Your task to perform on an android device: toggle improve location accuracy Image 0: 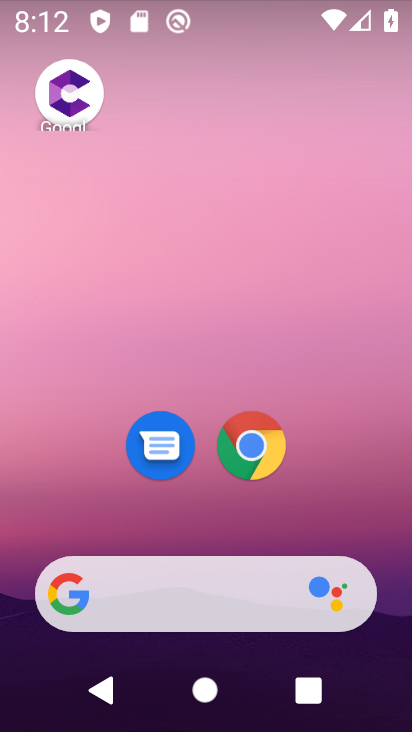
Step 0: drag from (200, 529) to (84, 16)
Your task to perform on an android device: toggle improve location accuracy Image 1: 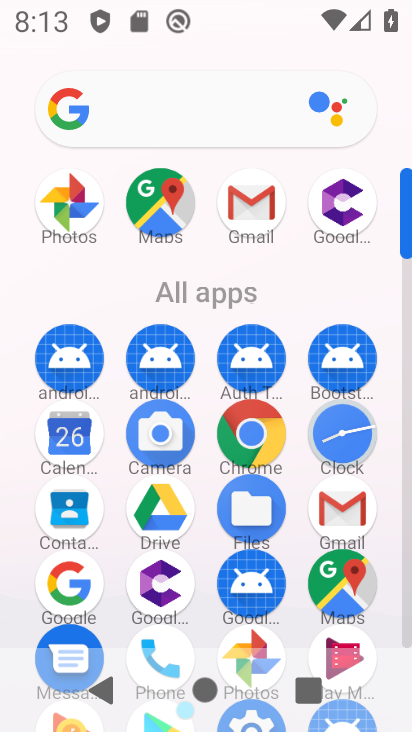
Step 1: drag from (269, 536) to (288, 36)
Your task to perform on an android device: toggle improve location accuracy Image 2: 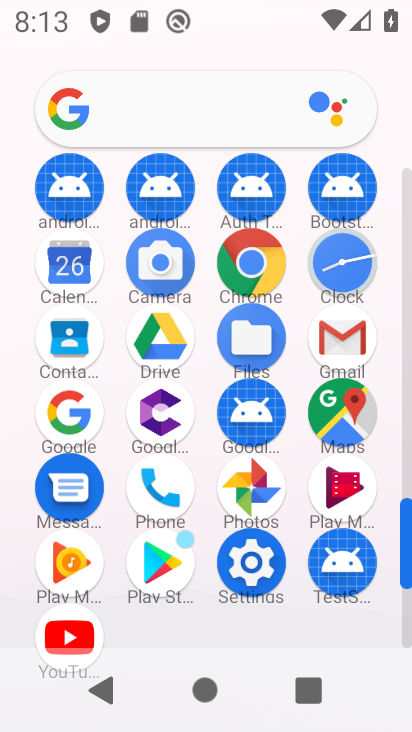
Step 2: click (243, 562)
Your task to perform on an android device: toggle improve location accuracy Image 3: 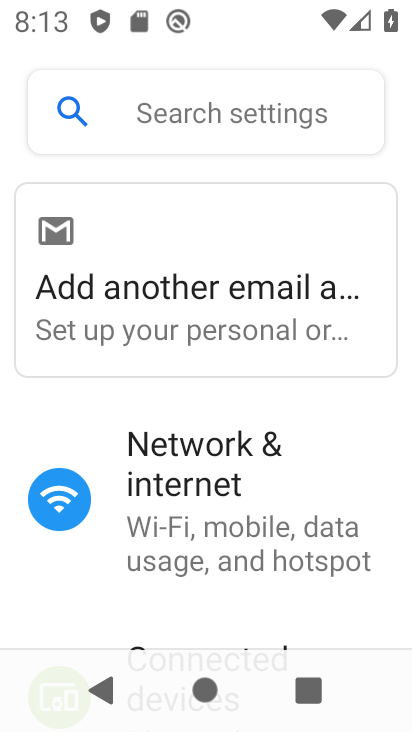
Step 3: drag from (259, 519) to (199, 44)
Your task to perform on an android device: toggle improve location accuracy Image 4: 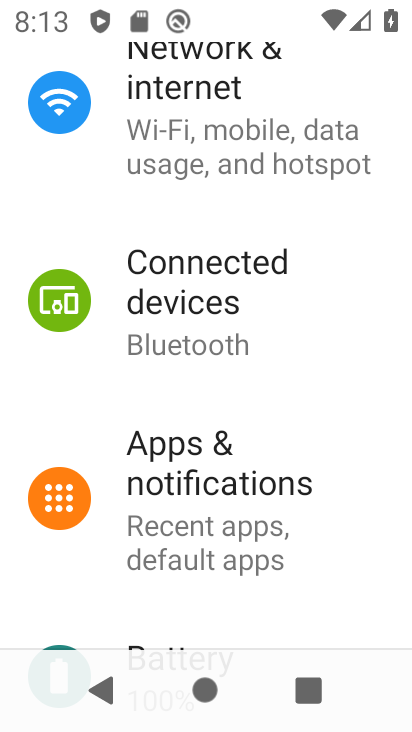
Step 4: drag from (276, 522) to (276, 6)
Your task to perform on an android device: toggle improve location accuracy Image 5: 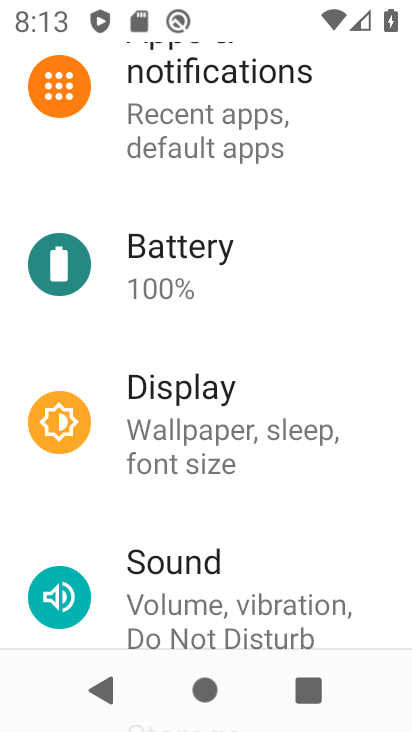
Step 5: drag from (320, 517) to (265, 61)
Your task to perform on an android device: toggle improve location accuracy Image 6: 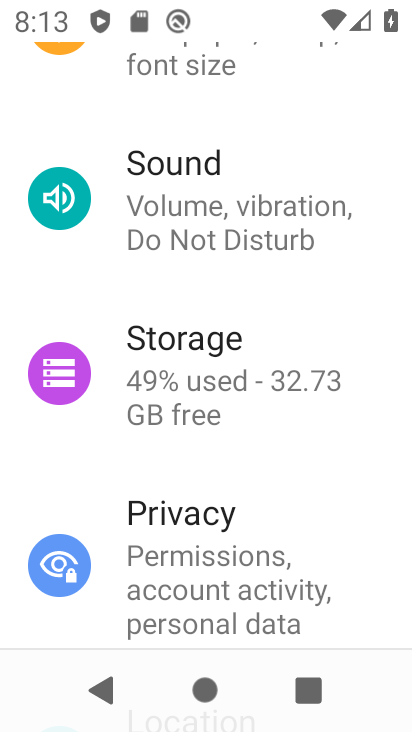
Step 6: drag from (303, 568) to (237, 157)
Your task to perform on an android device: toggle improve location accuracy Image 7: 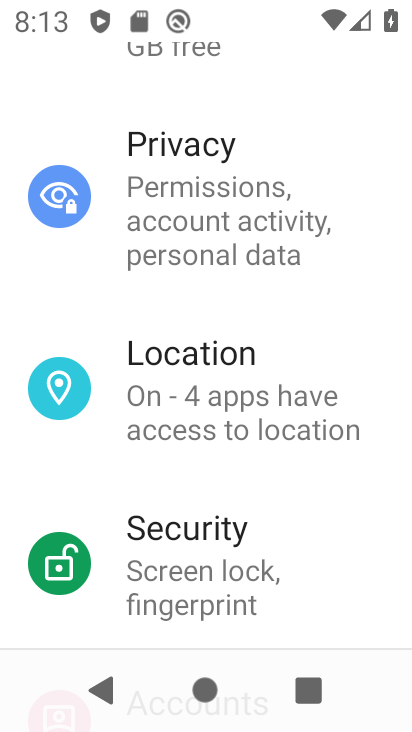
Step 7: click (245, 428)
Your task to perform on an android device: toggle improve location accuracy Image 8: 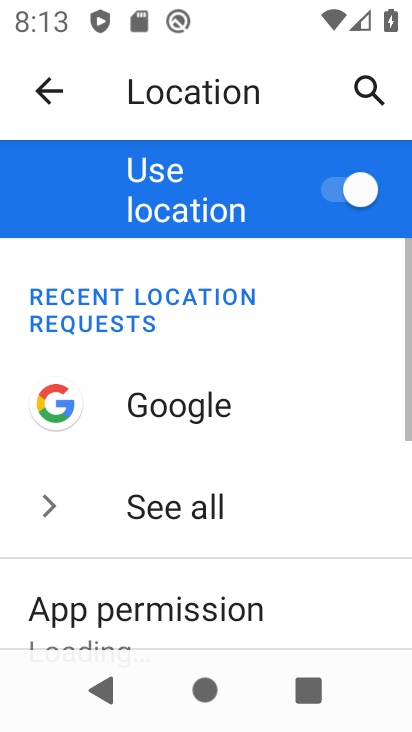
Step 8: drag from (238, 560) to (175, 63)
Your task to perform on an android device: toggle improve location accuracy Image 9: 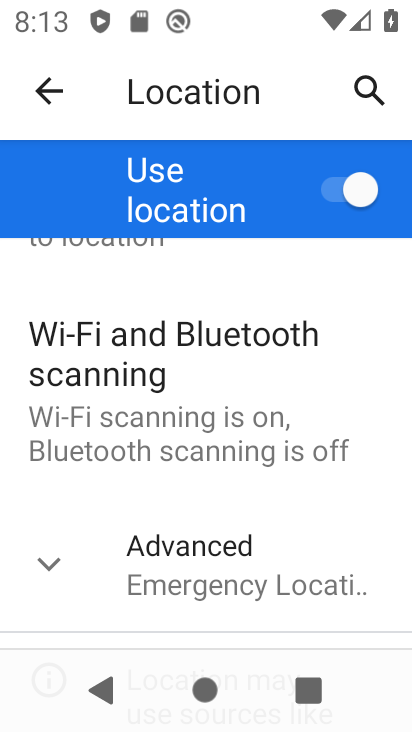
Step 9: click (281, 579)
Your task to perform on an android device: toggle improve location accuracy Image 10: 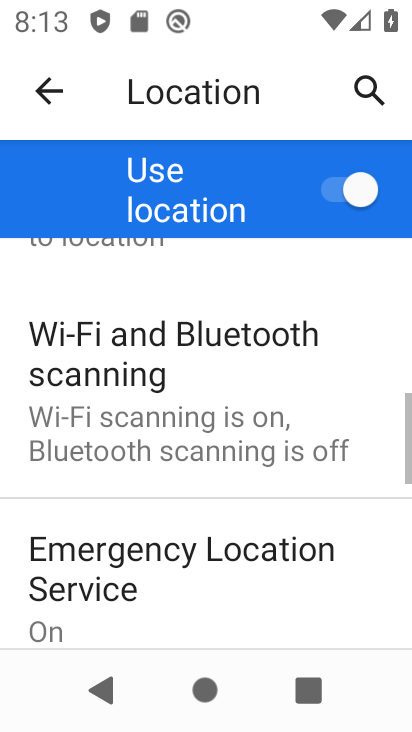
Step 10: drag from (282, 567) to (204, 127)
Your task to perform on an android device: toggle improve location accuracy Image 11: 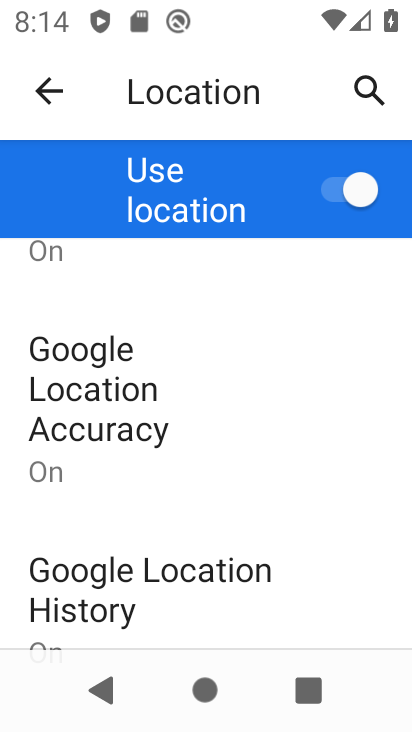
Step 11: click (151, 392)
Your task to perform on an android device: toggle improve location accuracy Image 12: 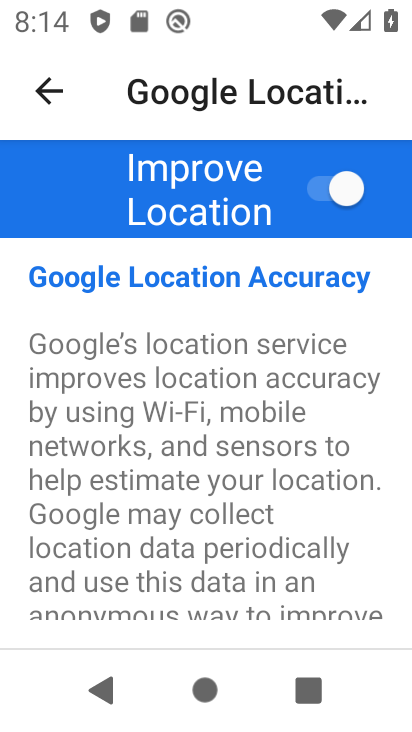
Step 12: click (353, 183)
Your task to perform on an android device: toggle improve location accuracy Image 13: 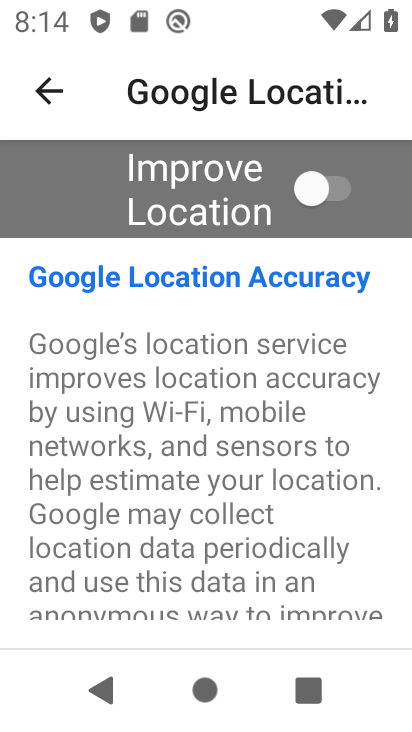
Step 13: task complete